Your task to perform on an android device: Turn on the flashlight Image 0: 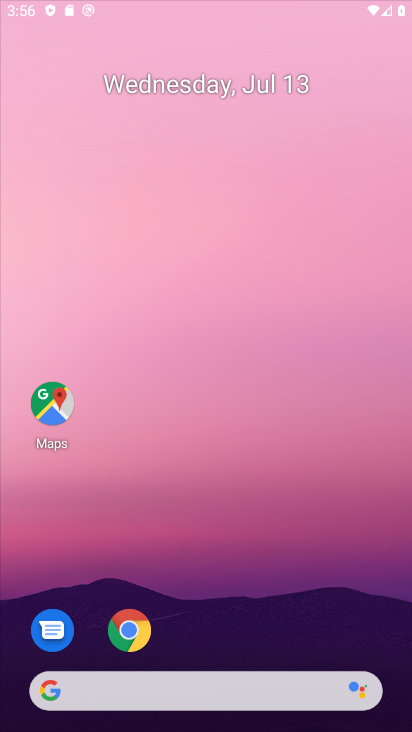
Step 0: press home button
Your task to perform on an android device: Turn on the flashlight Image 1: 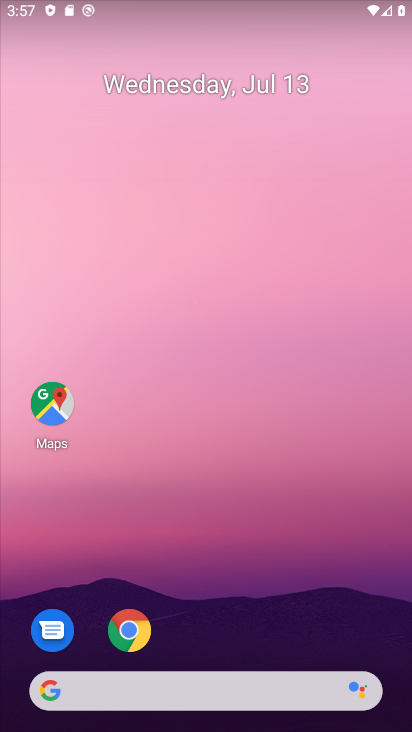
Step 1: task complete